Your task to perform on an android device: open a bookmark in the chrome app Image 0: 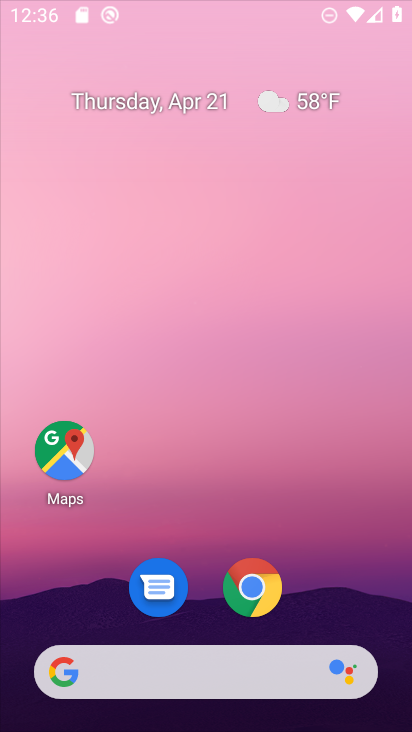
Step 0: click (372, 52)
Your task to perform on an android device: open a bookmark in the chrome app Image 1: 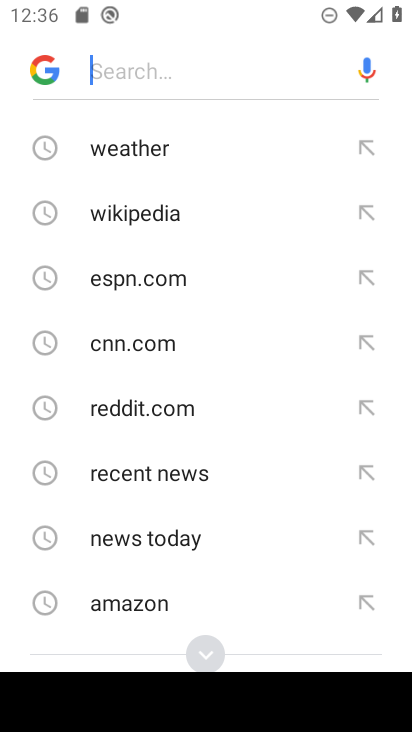
Step 1: press home button
Your task to perform on an android device: open a bookmark in the chrome app Image 2: 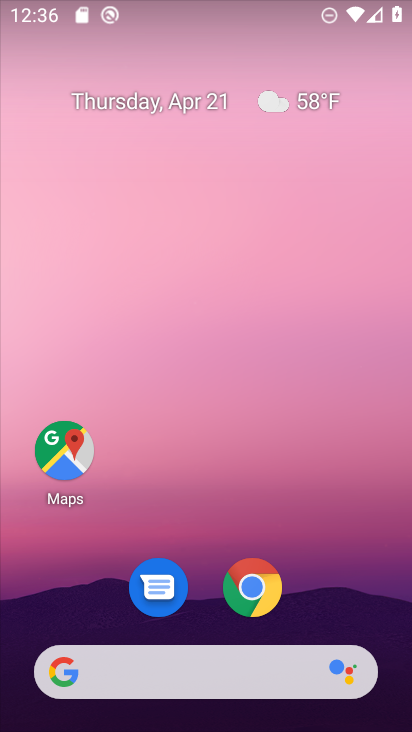
Step 2: click (254, 584)
Your task to perform on an android device: open a bookmark in the chrome app Image 3: 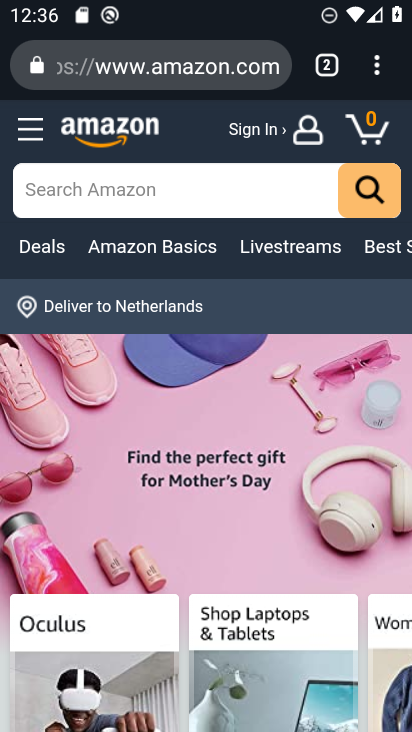
Step 3: click (373, 74)
Your task to perform on an android device: open a bookmark in the chrome app Image 4: 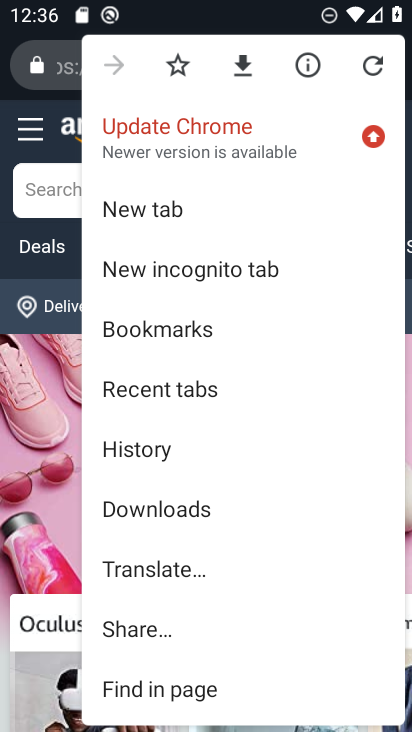
Step 4: click (177, 327)
Your task to perform on an android device: open a bookmark in the chrome app Image 5: 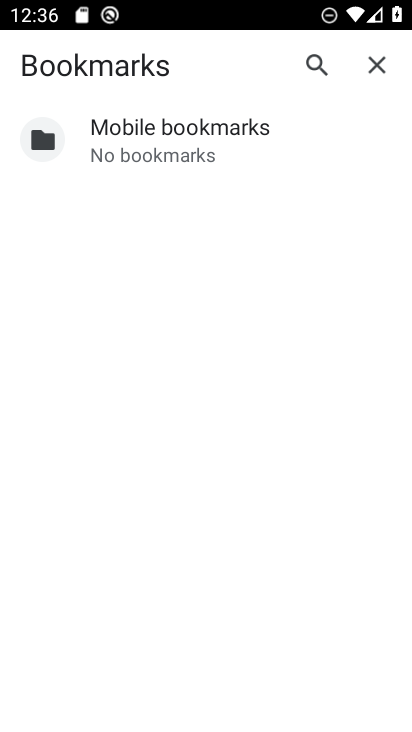
Step 5: click (379, 61)
Your task to perform on an android device: open a bookmark in the chrome app Image 6: 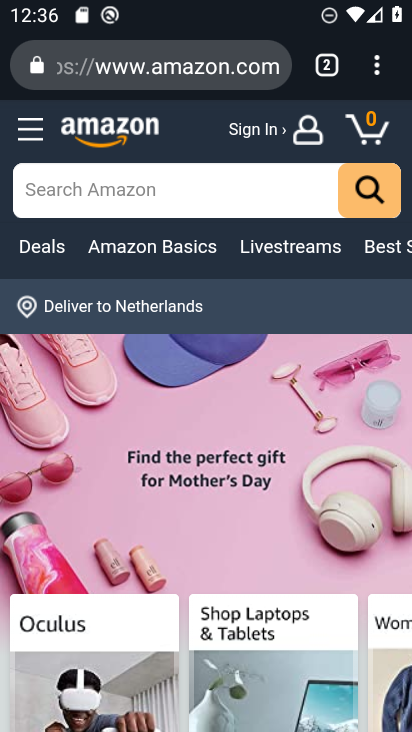
Step 6: click (373, 73)
Your task to perform on an android device: open a bookmark in the chrome app Image 7: 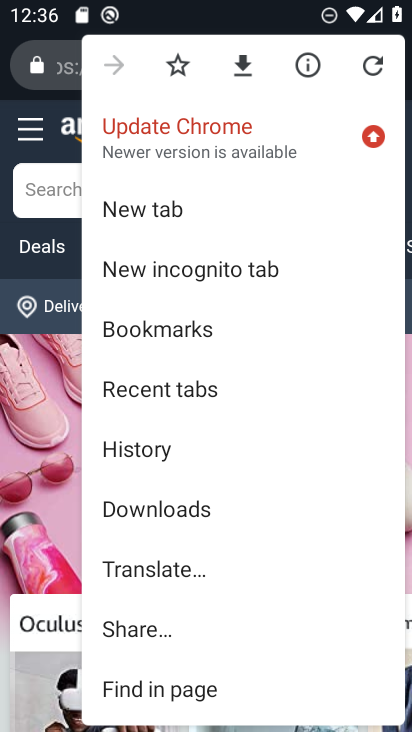
Step 7: click (166, 208)
Your task to perform on an android device: open a bookmark in the chrome app Image 8: 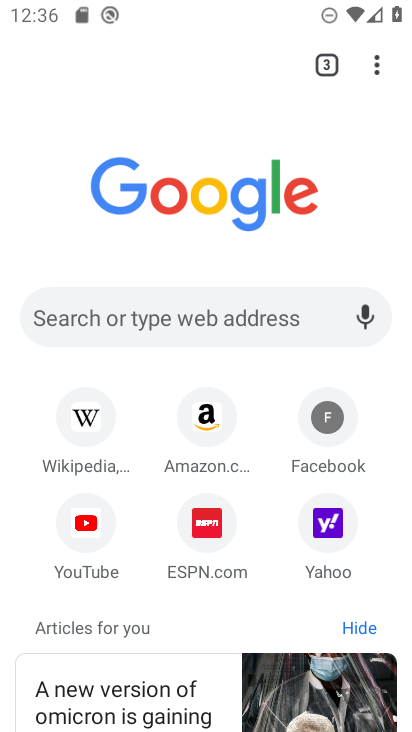
Step 8: click (336, 536)
Your task to perform on an android device: open a bookmark in the chrome app Image 9: 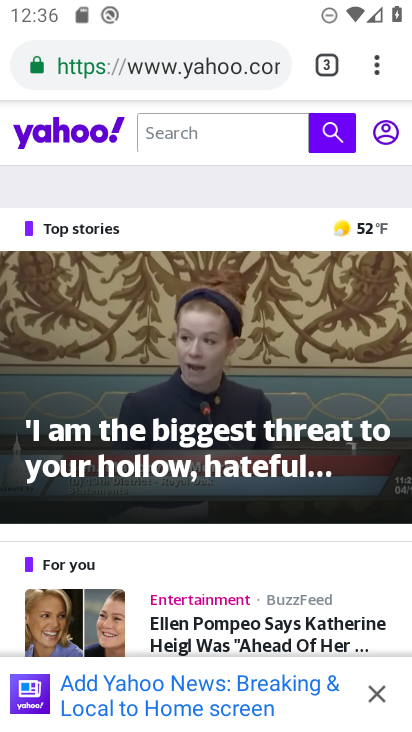
Step 9: task complete